Your task to perform on an android device: Show me productivity apps on the Play Store Image 0: 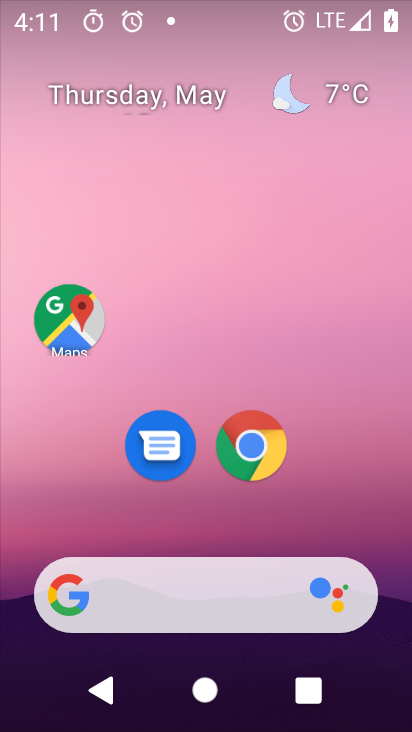
Step 0: drag from (384, 559) to (394, 16)
Your task to perform on an android device: Show me productivity apps on the Play Store Image 1: 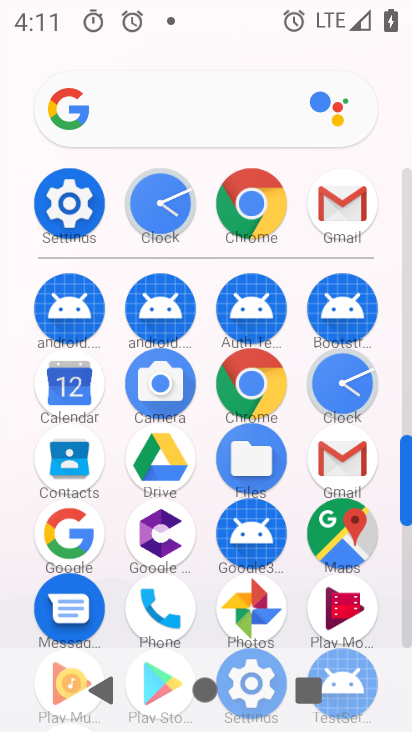
Step 1: drag from (404, 501) to (409, 408)
Your task to perform on an android device: Show me productivity apps on the Play Store Image 2: 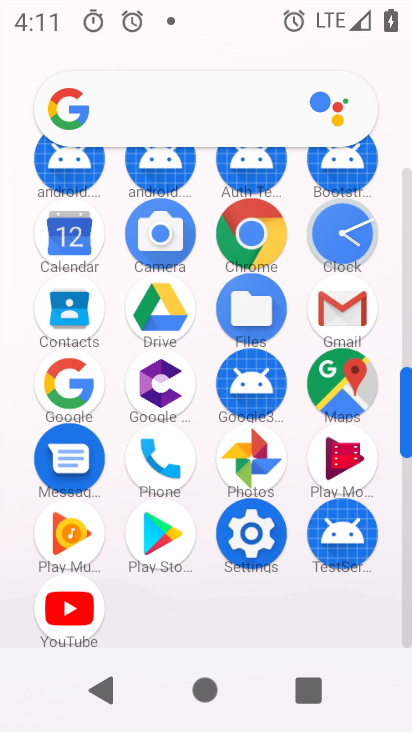
Step 2: click (160, 536)
Your task to perform on an android device: Show me productivity apps on the Play Store Image 3: 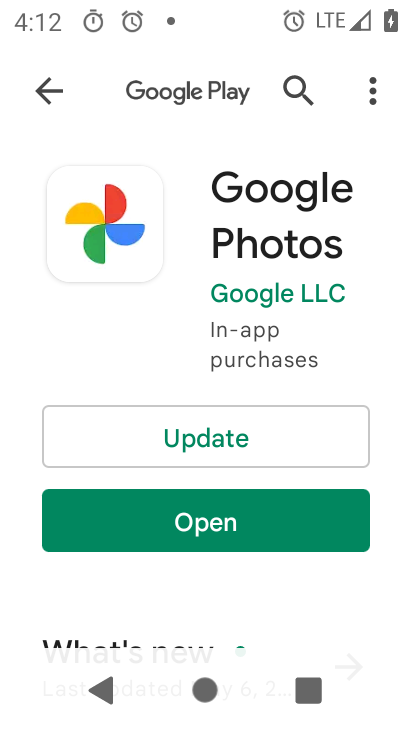
Step 3: click (33, 90)
Your task to perform on an android device: Show me productivity apps on the Play Store Image 4: 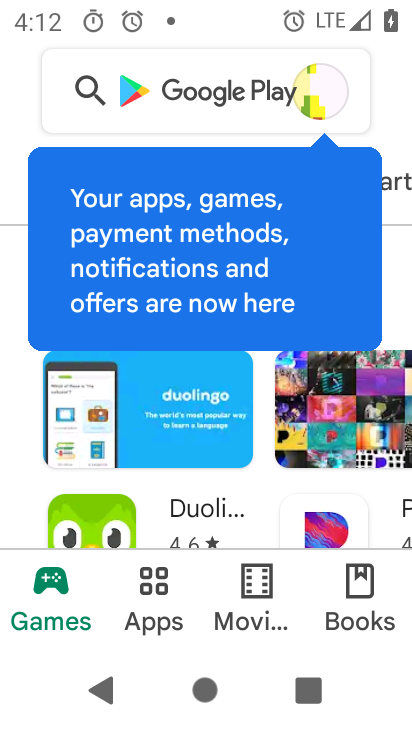
Step 4: click (162, 601)
Your task to perform on an android device: Show me productivity apps on the Play Store Image 5: 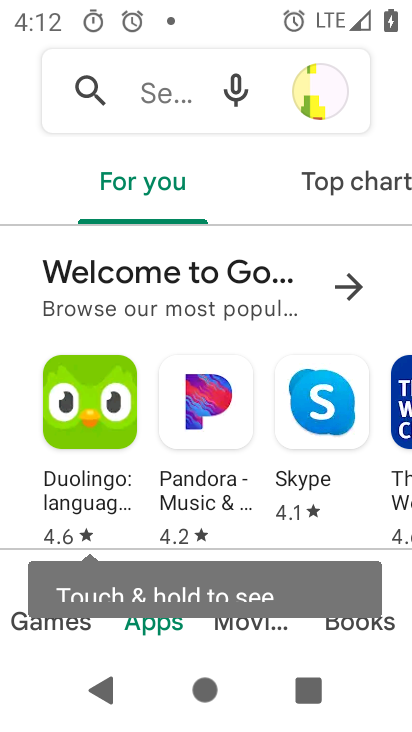
Step 5: drag from (348, 184) to (8, 289)
Your task to perform on an android device: Show me productivity apps on the Play Store Image 6: 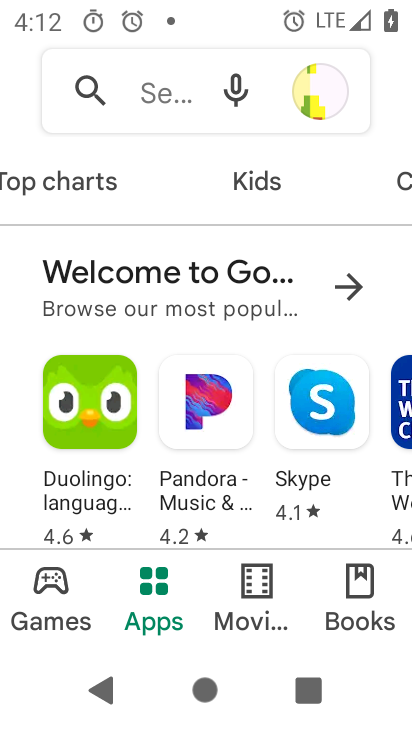
Step 6: drag from (344, 180) to (0, 191)
Your task to perform on an android device: Show me productivity apps on the Play Store Image 7: 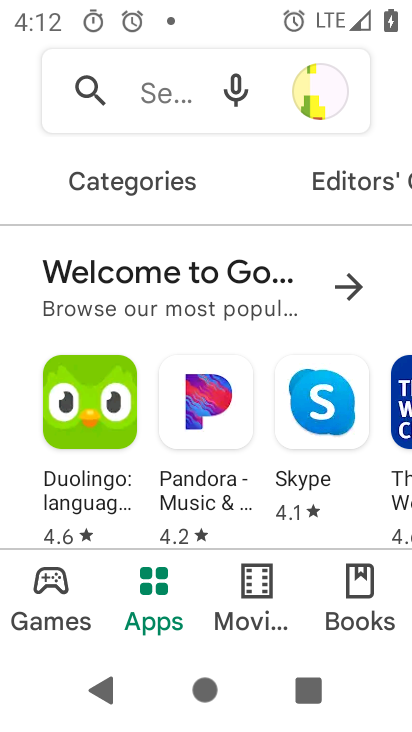
Step 7: drag from (280, 176) to (335, 173)
Your task to perform on an android device: Show me productivity apps on the Play Store Image 8: 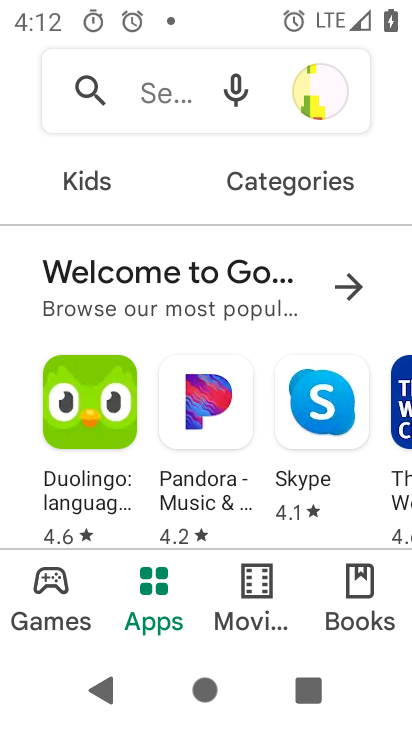
Step 8: click (287, 180)
Your task to perform on an android device: Show me productivity apps on the Play Store Image 9: 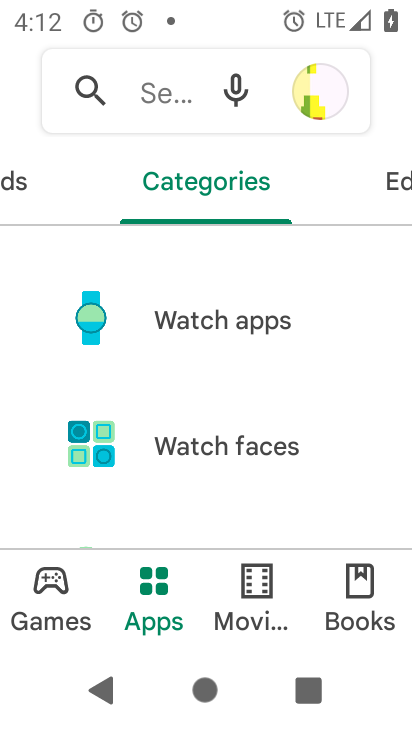
Step 9: drag from (324, 484) to (309, 163)
Your task to perform on an android device: Show me productivity apps on the Play Store Image 10: 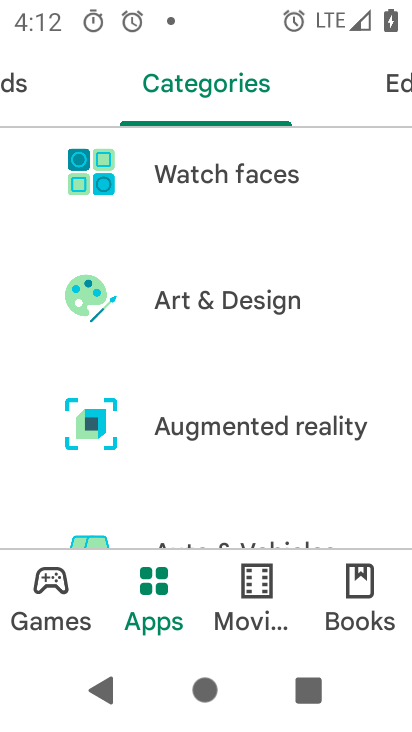
Step 10: drag from (244, 389) to (205, 97)
Your task to perform on an android device: Show me productivity apps on the Play Store Image 11: 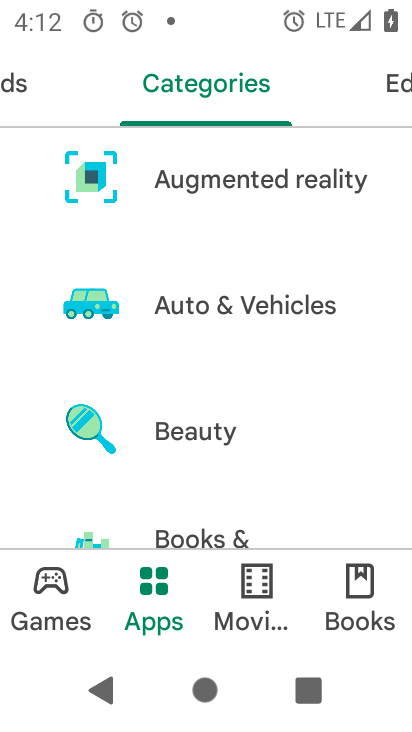
Step 11: drag from (210, 433) to (210, 137)
Your task to perform on an android device: Show me productivity apps on the Play Store Image 12: 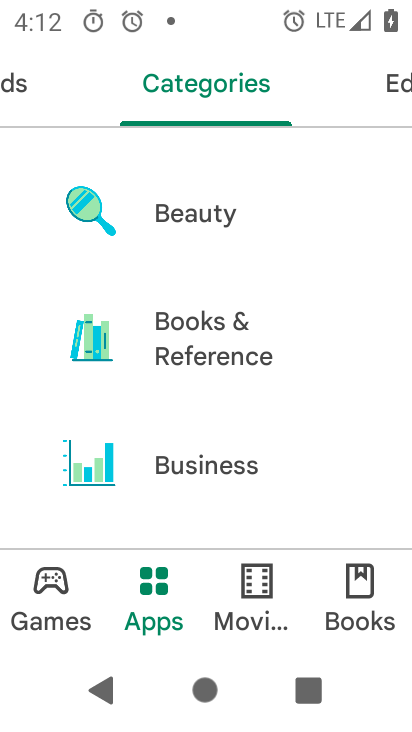
Step 12: drag from (290, 473) to (294, 177)
Your task to perform on an android device: Show me productivity apps on the Play Store Image 13: 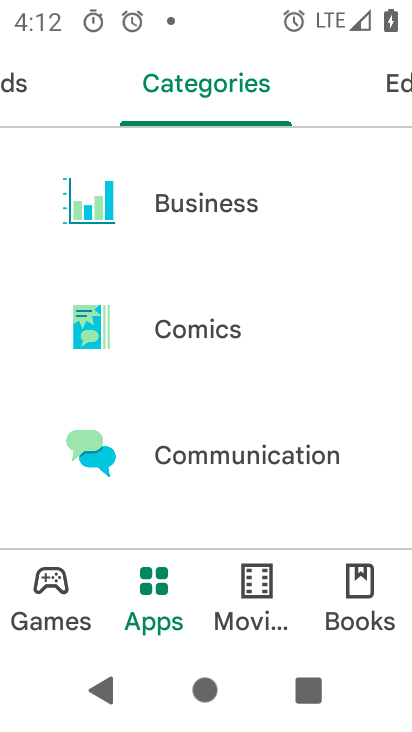
Step 13: drag from (318, 416) to (308, 135)
Your task to perform on an android device: Show me productivity apps on the Play Store Image 14: 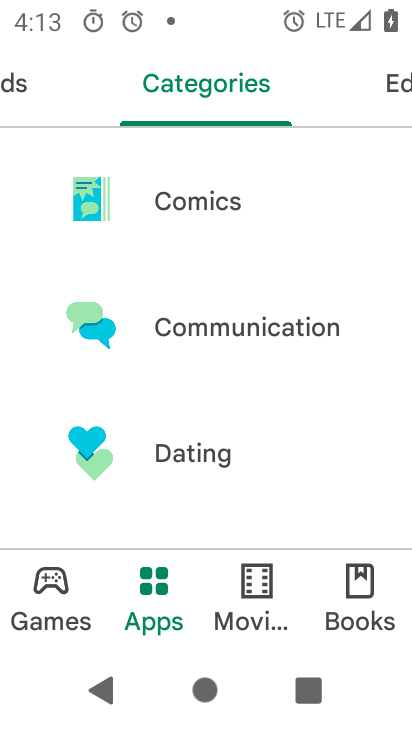
Step 14: drag from (379, 433) to (349, 163)
Your task to perform on an android device: Show me productivity apps on the Play Store Image 15: 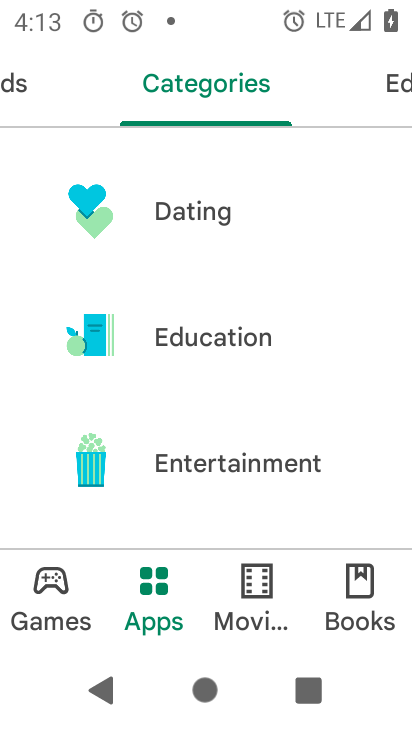
Step 15: drag from (318, 448) to (307, 147)
Your task to perform on an android device: Show me productivity apps on the Play Store Image 16: 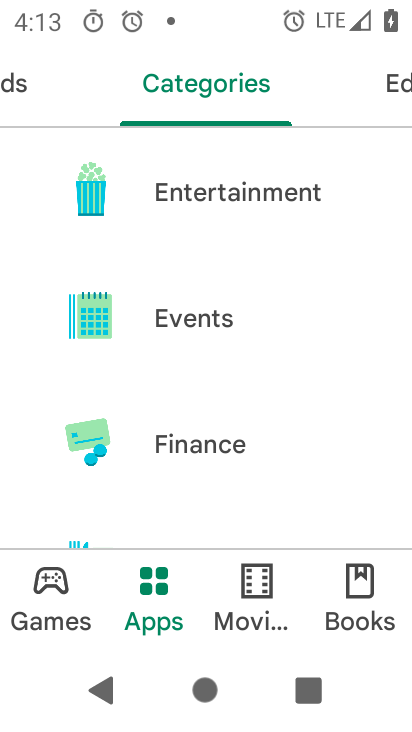
Step 16: drag from (276, 458) to (264, 193)
Your task to perform on an android device: Show me productivity apps on the Play Store Image 17: 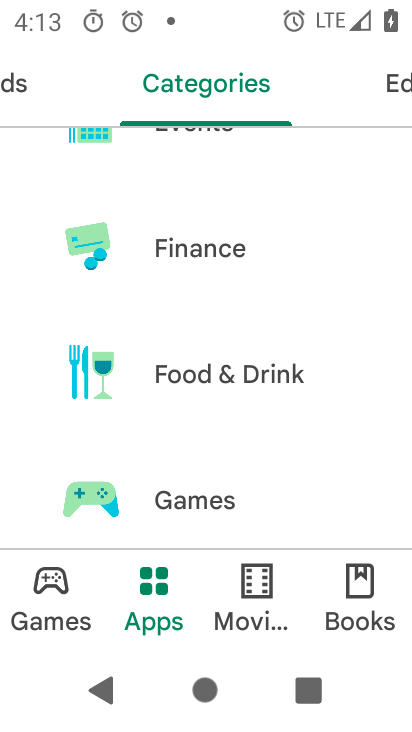
Step 17: drag from (282, 448) to (264, 182)
Your task to perform on an android device: Show me productivity apps on the Play Store Image 18: 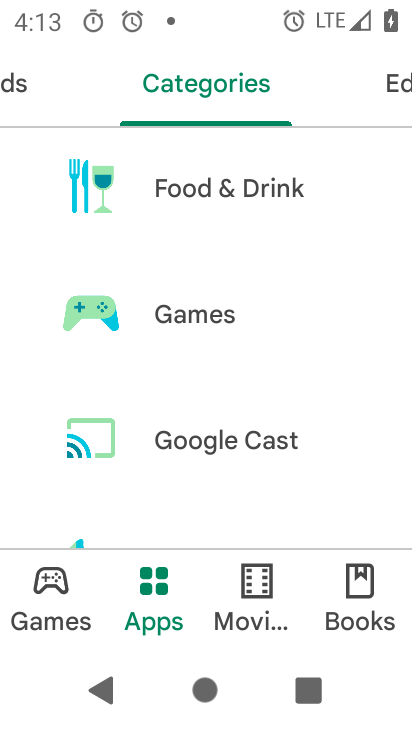
Step 18: drag from (347, 465) to (329, 188)
Your task to perform on an android device: Show me productivity apps on the Play Store Image 19: 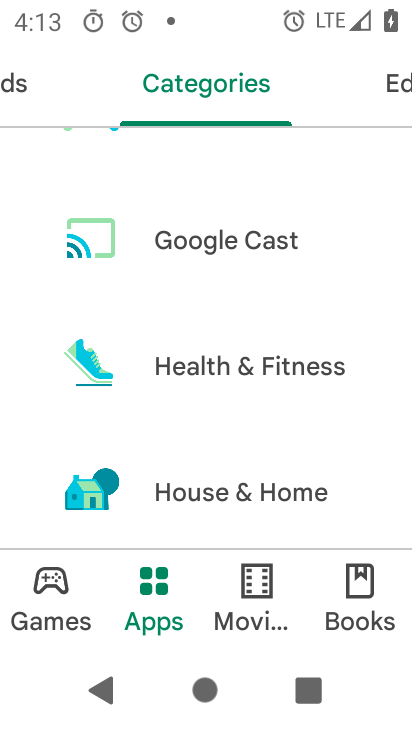
Step 19: drag from (305, 411) to (289, 202)
Your task to perform on an android device: Show me productivity apps on the Play Store Image 20: 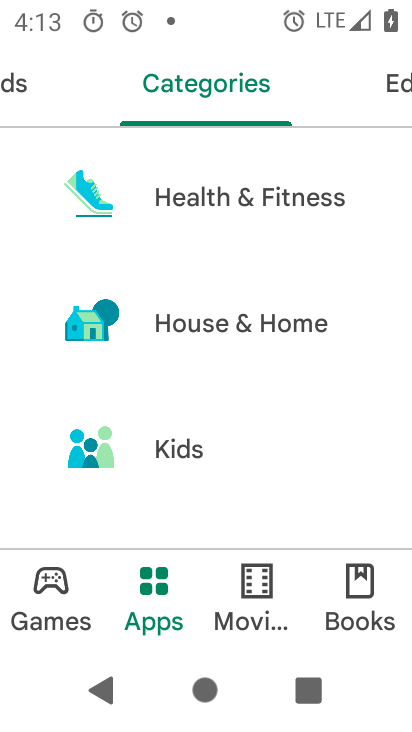
Step 20: drag from (266, 476) to (256, 159)
Your task to perform on an android device: Show me productivity apps on the Play Store Image 21: 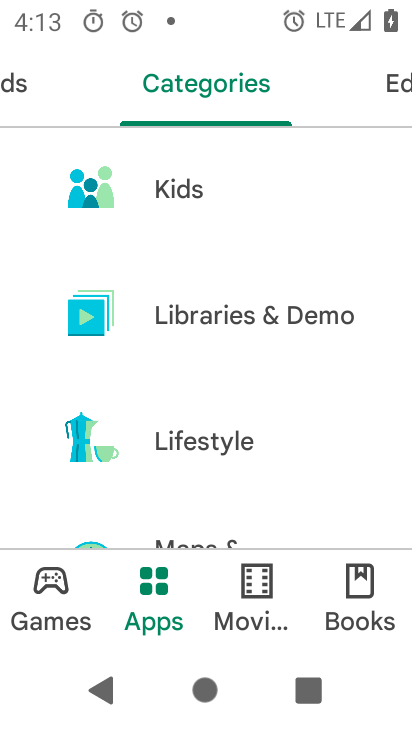
Step 21: drag from (272, 440) to (263, 206)
Your task to perform on an android device: Show me productivity apps on the Play Store Image 22: 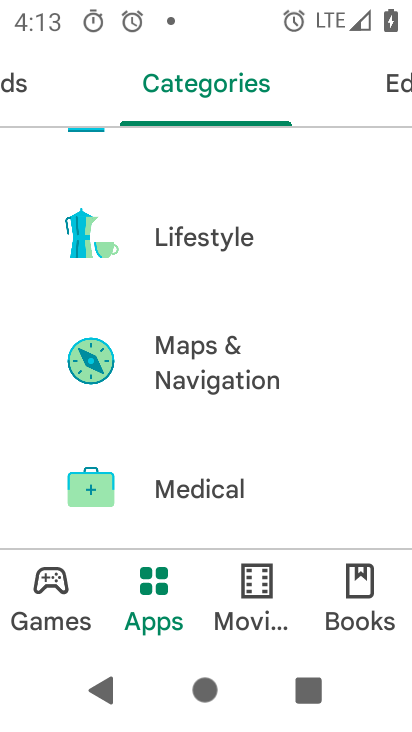
Step 22: drag from (275, 468) to (255, 204)
Your task to perform on an android device: Show me productivity apps on the Play Store Image 23: 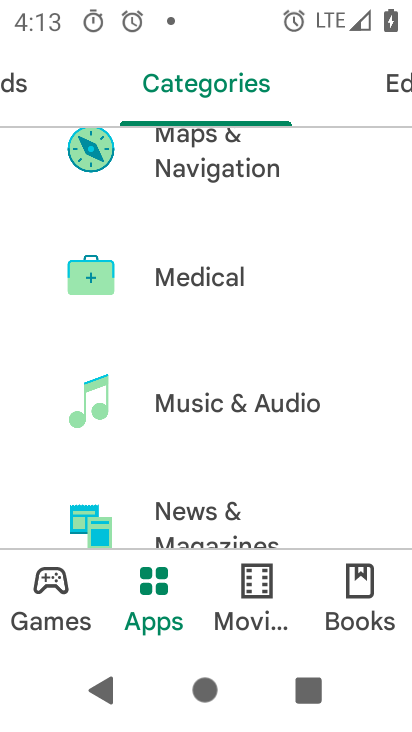
Step 23: drag from (297, 450) to (279, 176)
Your task to perform on an android device: Show me productivity apps on the Play Store Image 24: 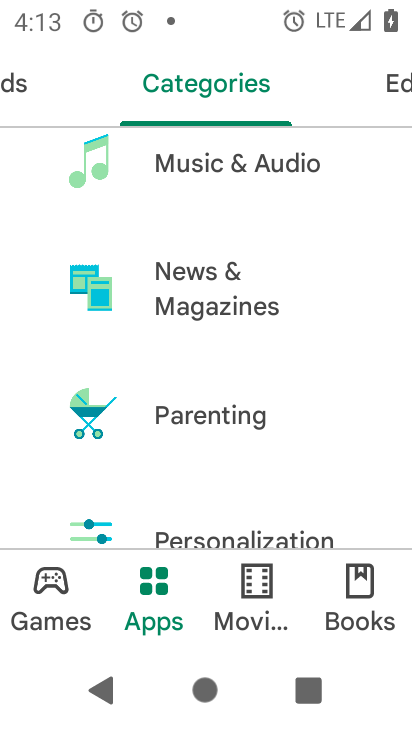
Step 24: drag from (275, 447) to (269, 178)
Your task to perform on an android device: Show me productivity apps on the Play Store Image 25: 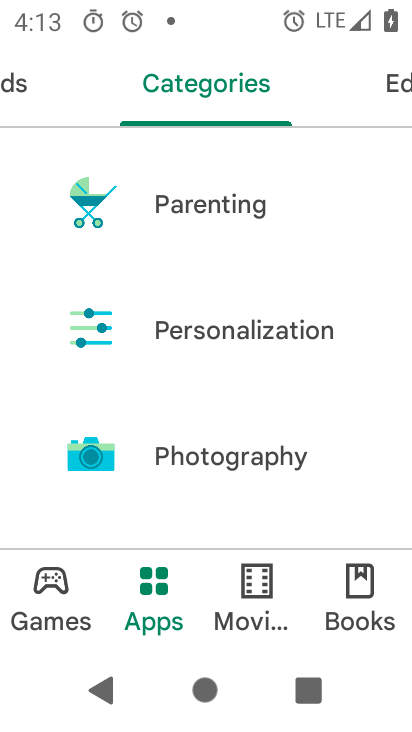
Step 25: drag from (334, 424) to (315, 180)
Your task to perform on an android device: Show me productivity apps on the Play Store Image 26: 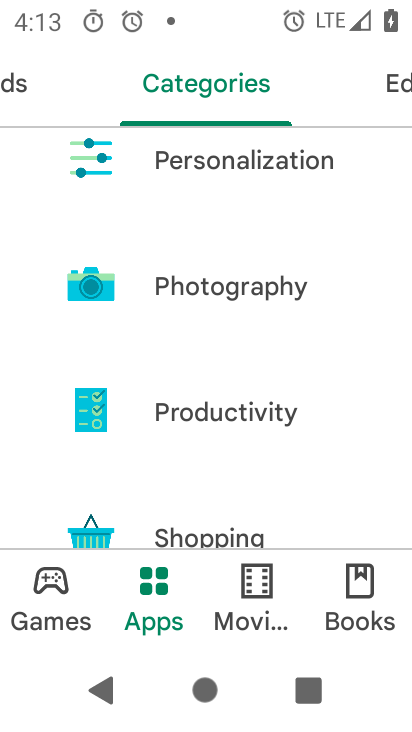
Step 26: click (218, 408)
Your task to perform on an android device: Show me productivity apps on the Play Store Image 27: 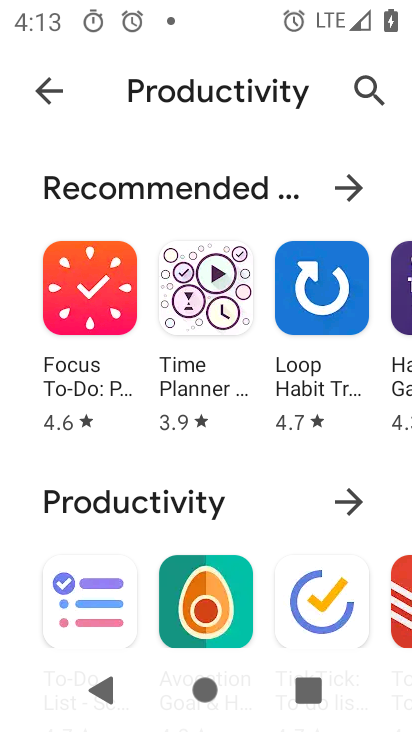
Step 27: task complete